Your task to perform on an android device: uninstall "Microsoft Authenticator" Image 0: 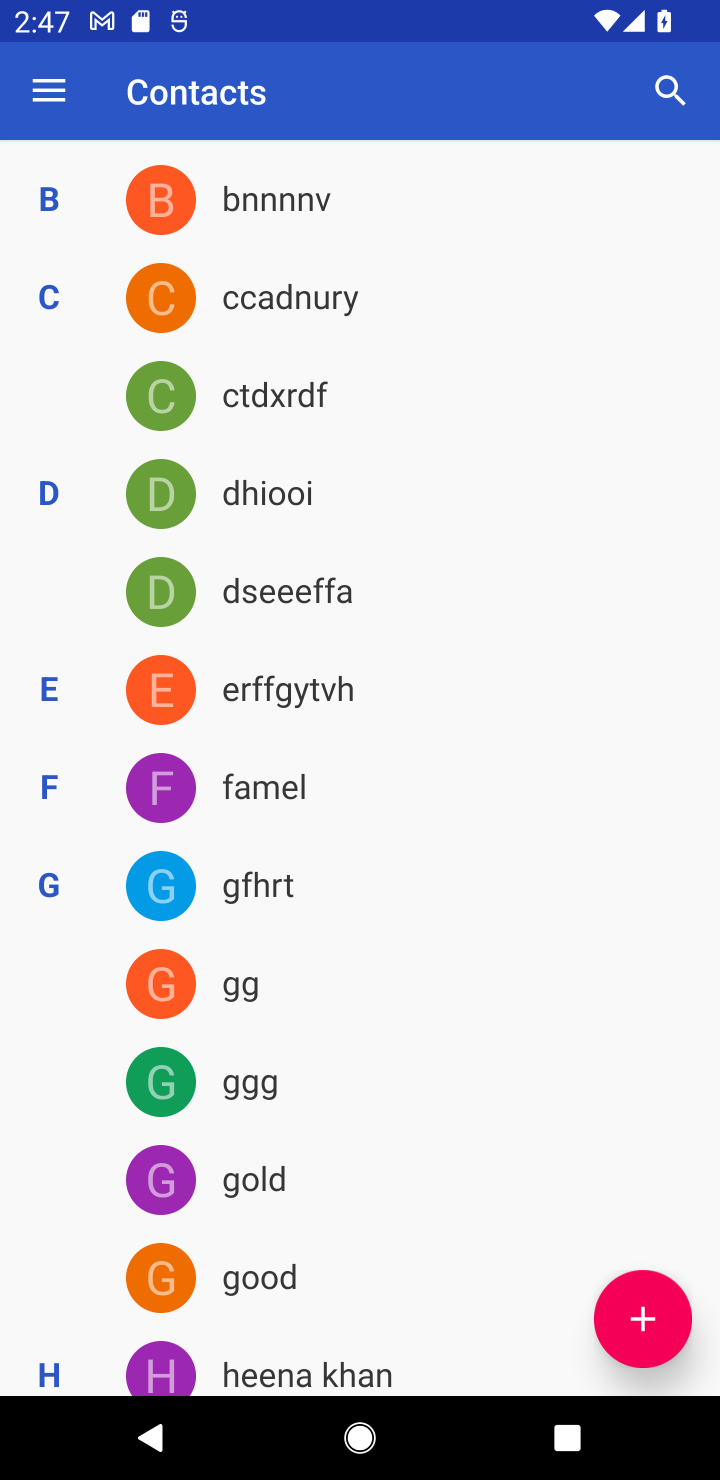
Step 0: press home button
Your task to perform on an android device: uninstall "Microsoft Authenticator" Image 1: 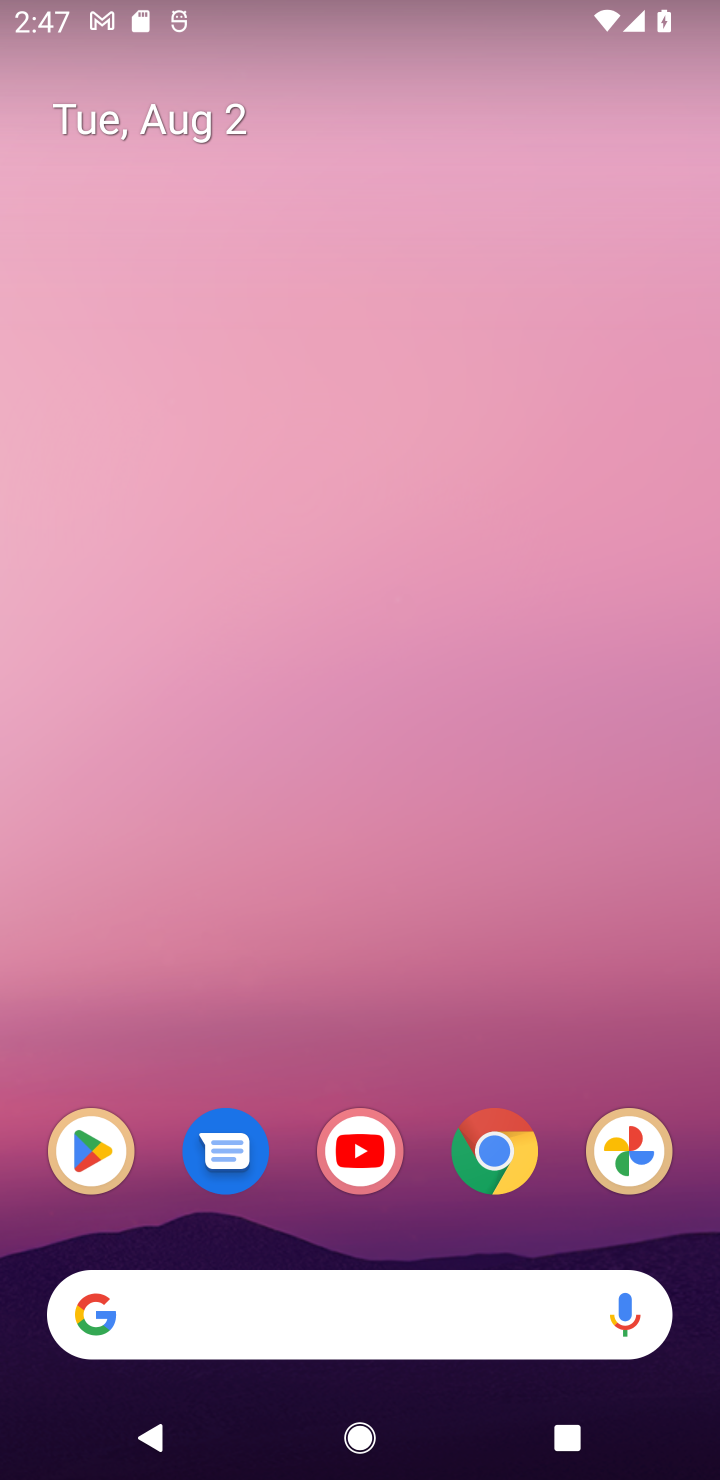
Step 1: drag from (500, 732) to (500, 156)
Your task to perform on an android device: uninstall "Microsoft Authenticator" Image 2: 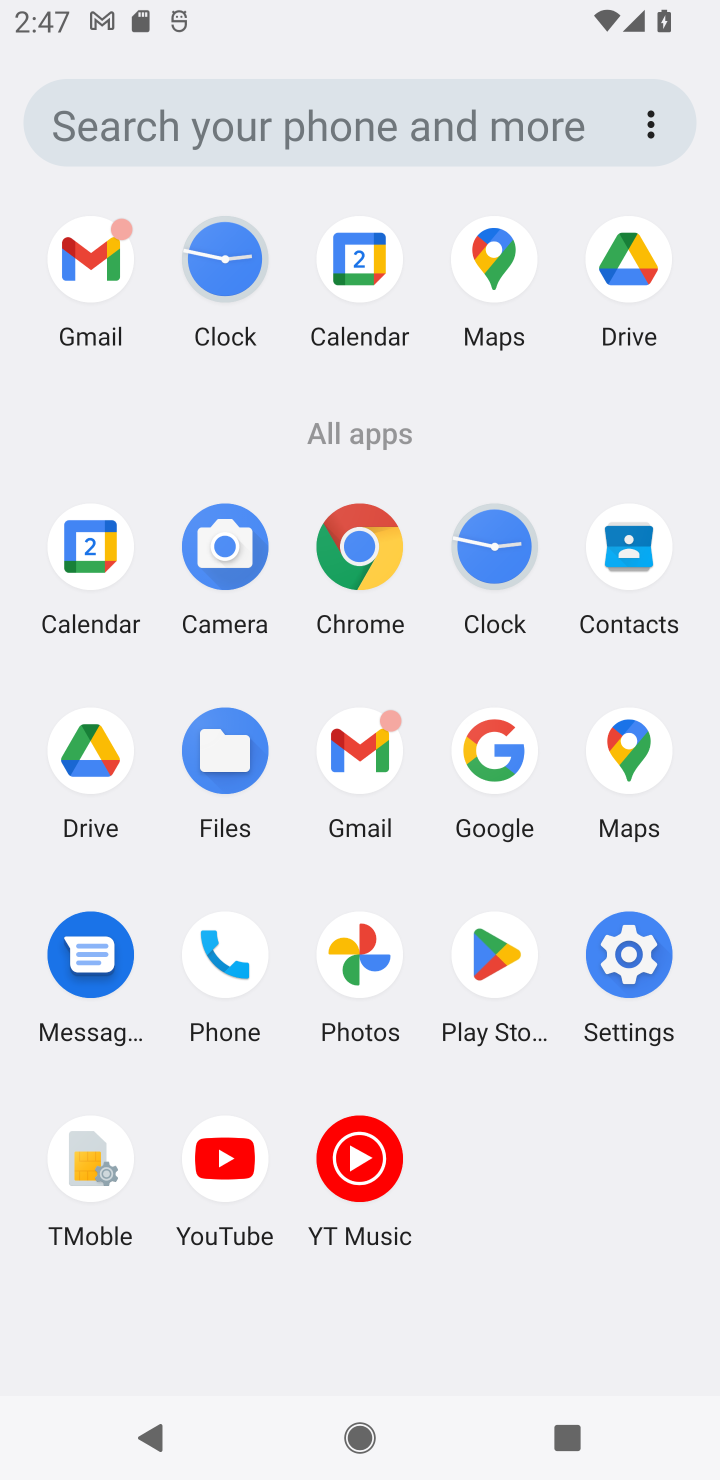
Step 2: click (524, 955)
Your task to perform on an android device: uninstall "Microsoft Authenticator" Image 3: 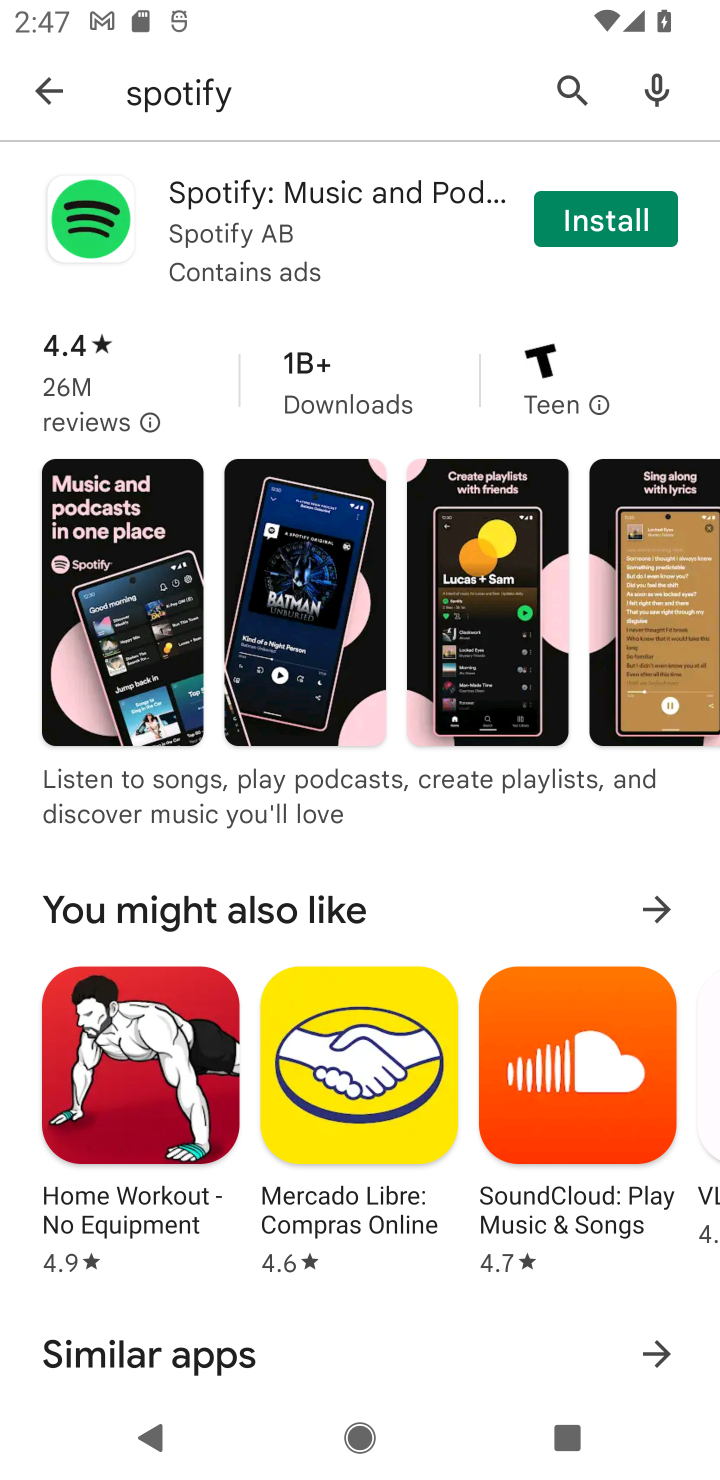
Step 3: press back button
Your task to perform on an android device: uninstall "Microsoft Authenticator" Image 4: 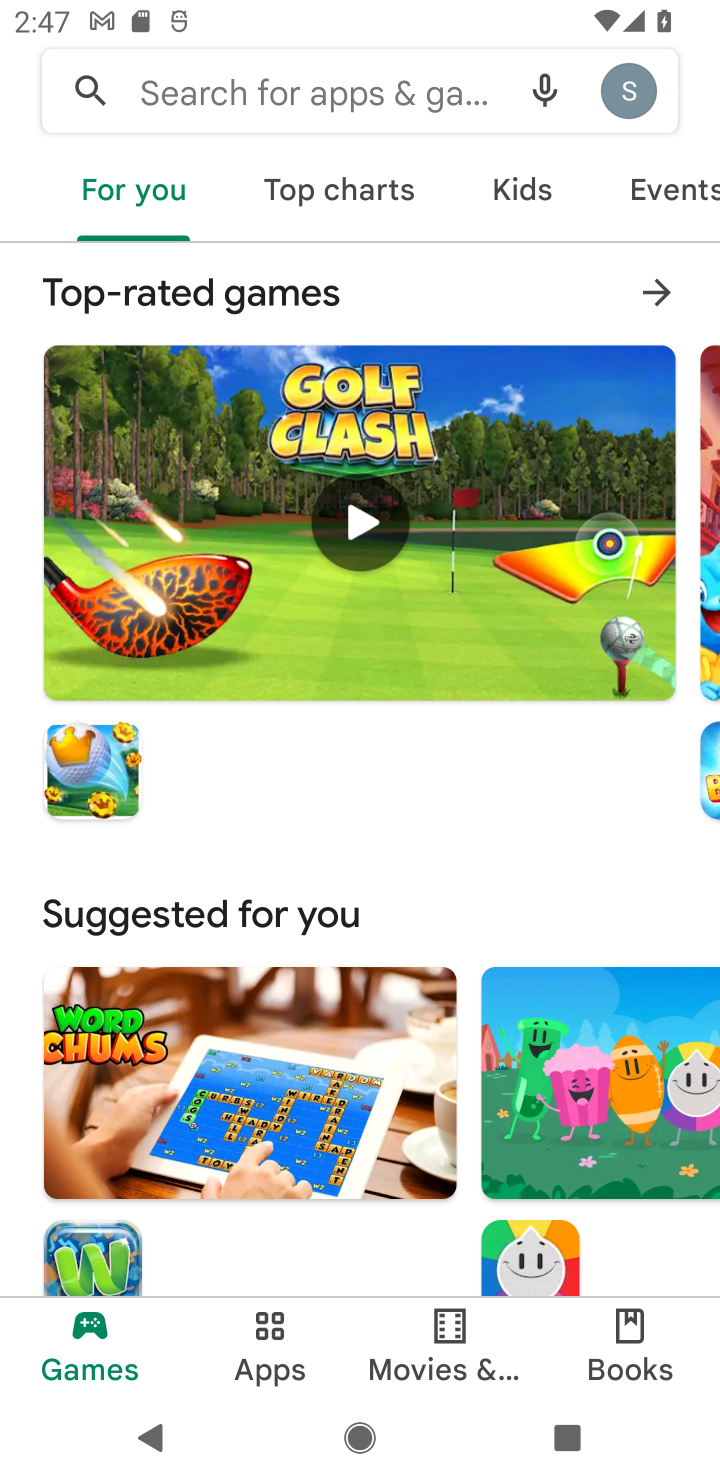
Step 4: click (359, 100)
Your task to perform on an android device: uninstall "Microsoft Authenticator" Image 5: 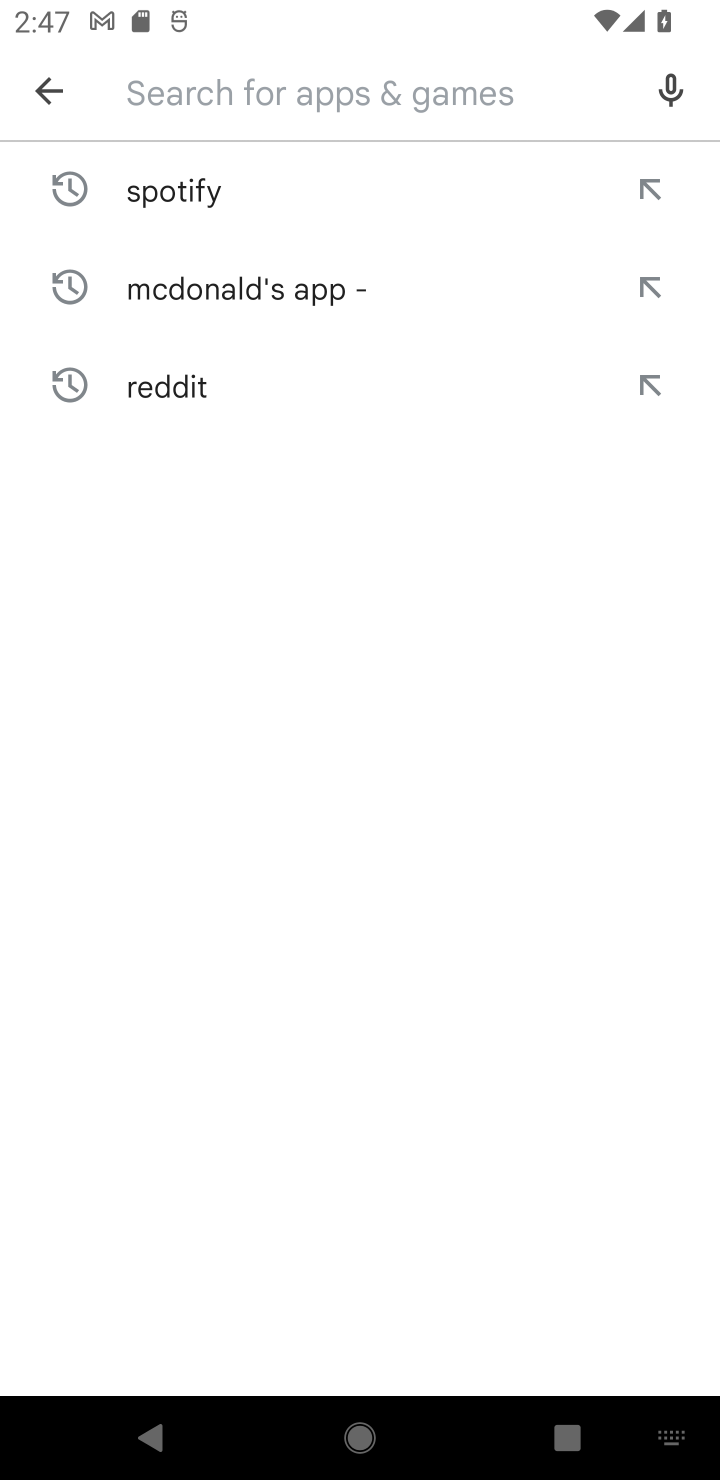
Step 5: type "microsoft authenticator"
Your task to perform on an android device: uninstall "Microsoft Authenticator" Image 6: 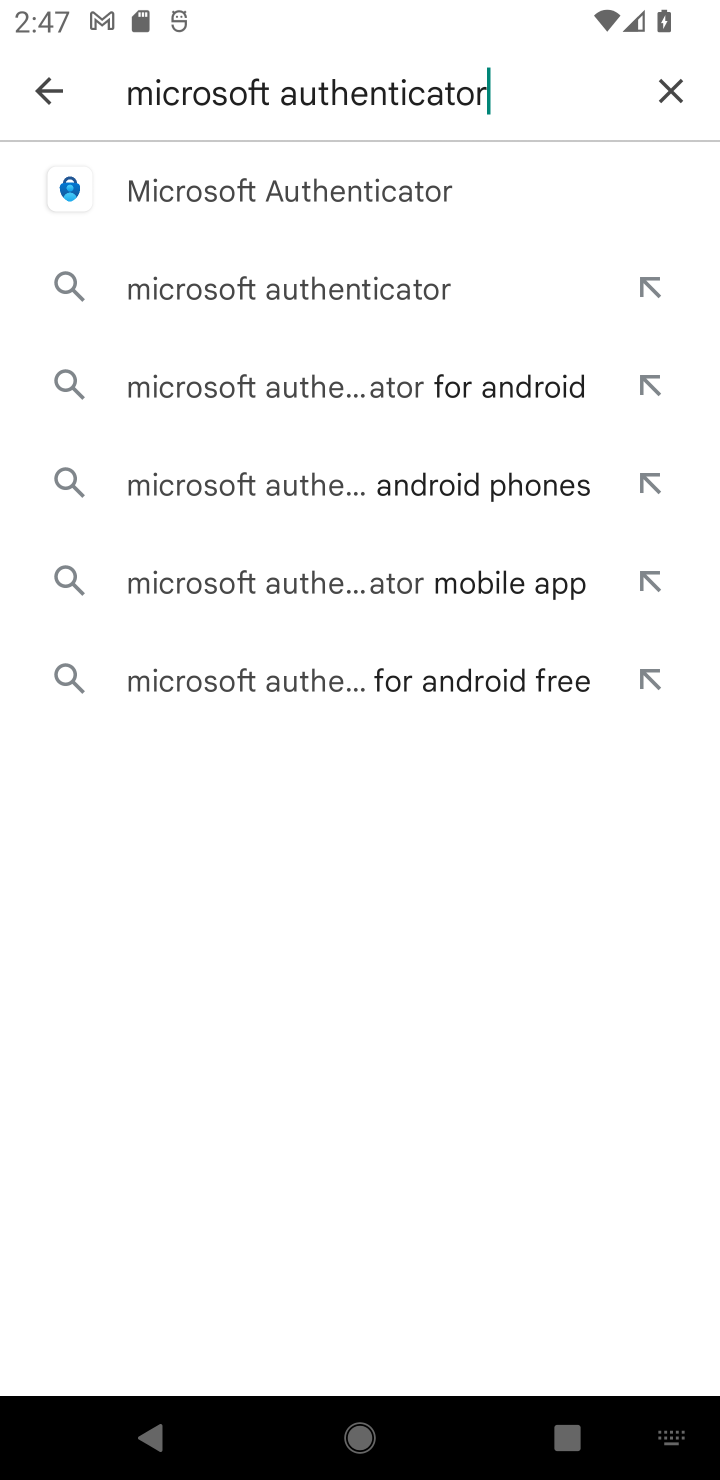
Step 6: click (368, 193)
Your task to perform on an android device: uninstall "Microsoft Authenticator" Image 7: 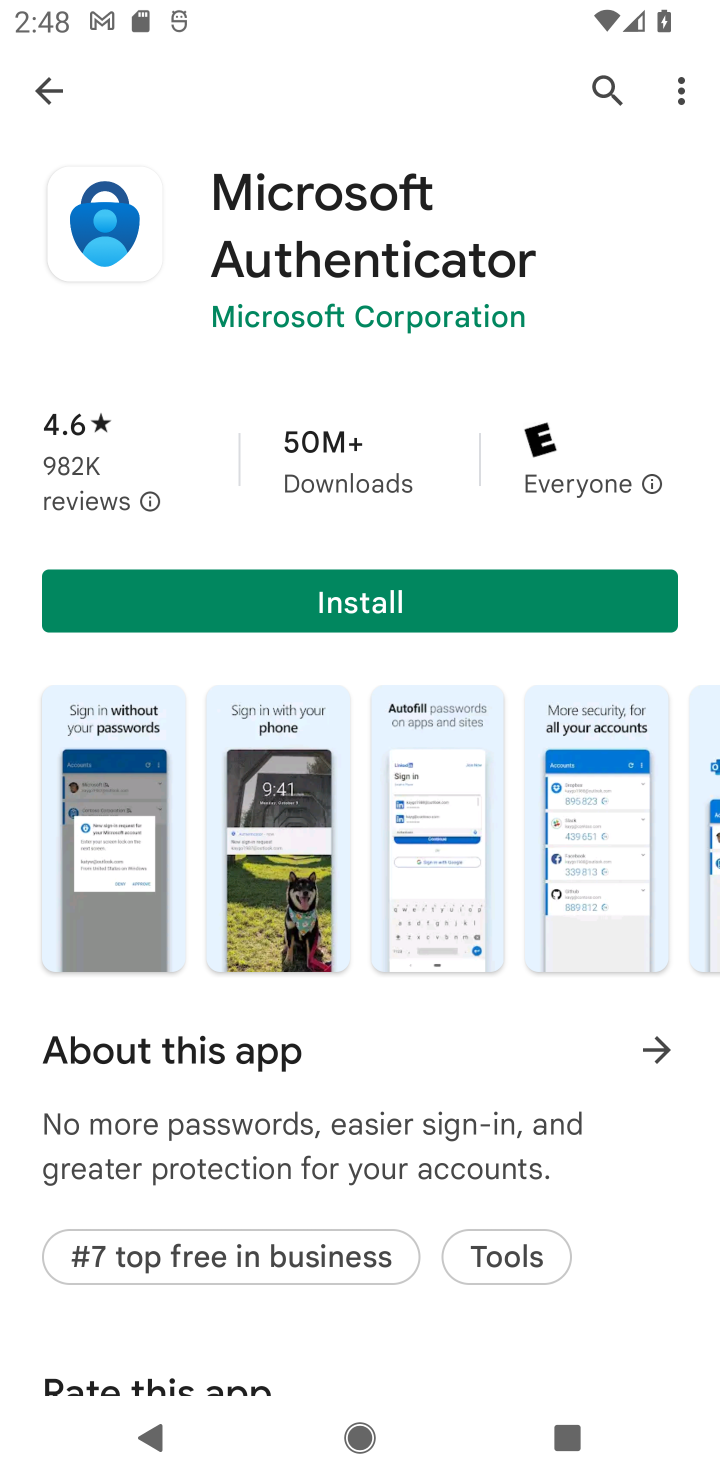
Step 7: task complete